Your task to perform on an android device: turn off location history Image 0: 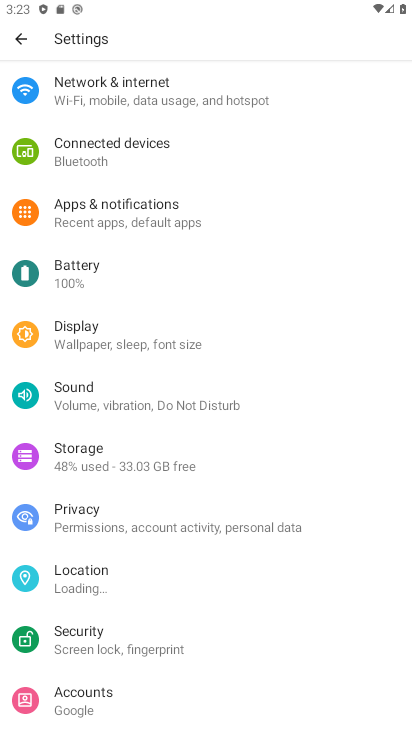
Step 0: press home button
Your task to perform on an android device: turn off location history Image 1: 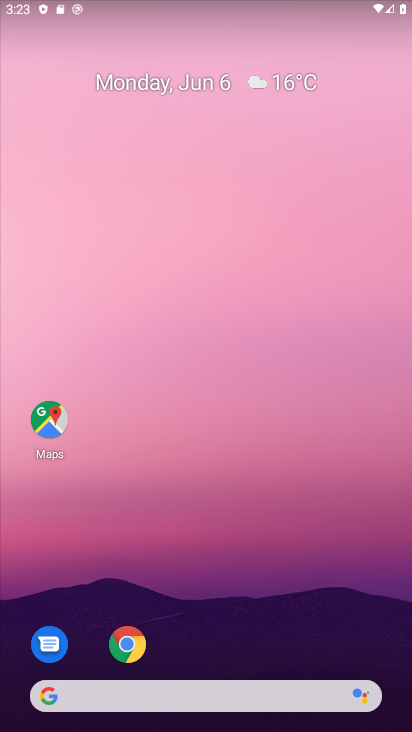
Step 1: drag from (179, 709) to (212, 23)
Your task to perform on an android device: turn off location history Image 2: 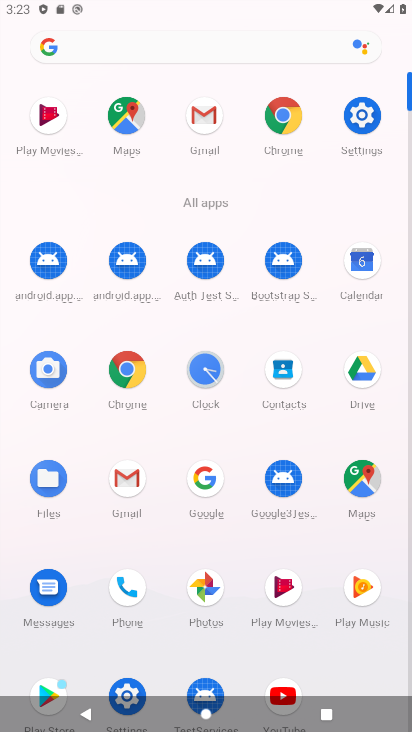
Step 2: click (377, 118)
Your task to perform on an android device: turn off location history Image 3: 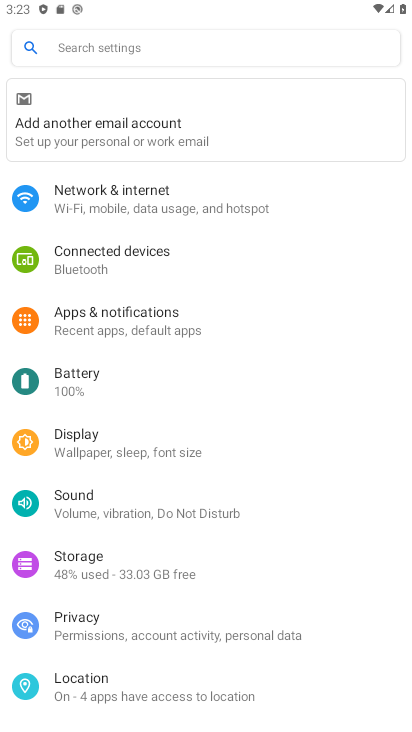
Step 3: click (375, 116)
Your task to perform on an android device: turn off location history Image 4: 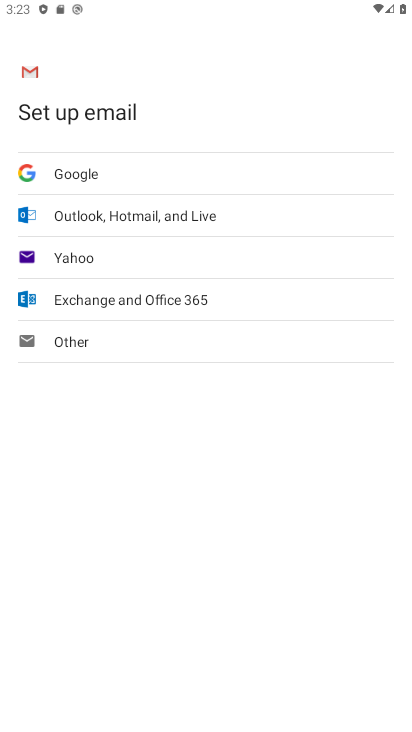
Step 4: press home button
Your task to perform on an android device: turn off location history Image 5: 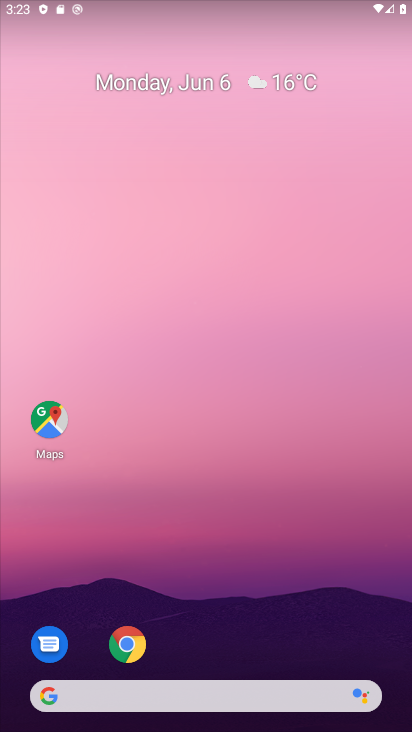
Step 5: drag from (128, 727) to (124, 190)
Your task to perform on an android device: turn off location history Image 6: 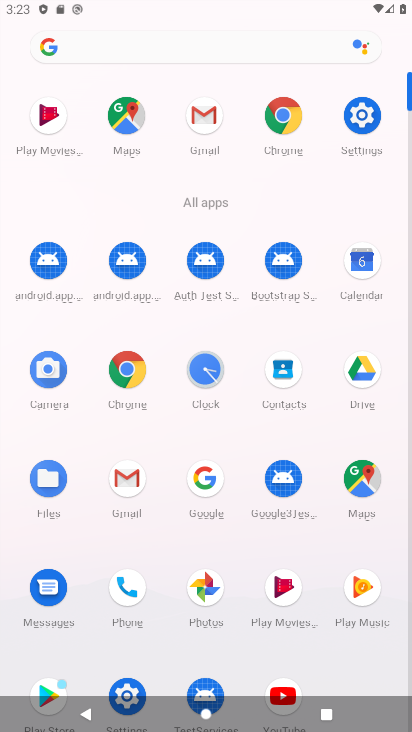
Step 6: click (367, 134)
Your task to perform on an android device: turn off location history Image 7: 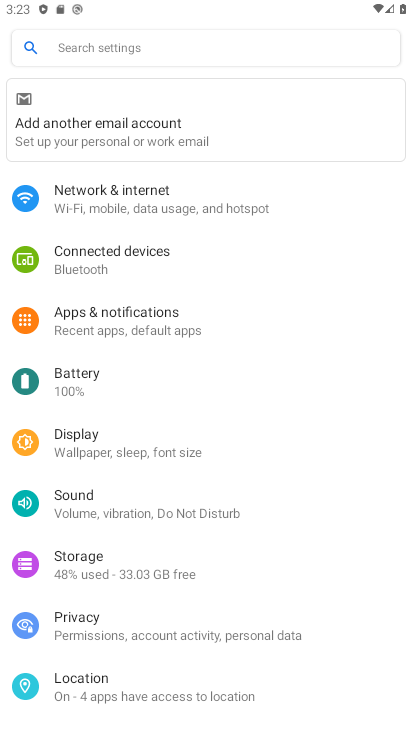
Step 7: click (196, 685)
Your task to perform on an android device: turn off location history Image 8: 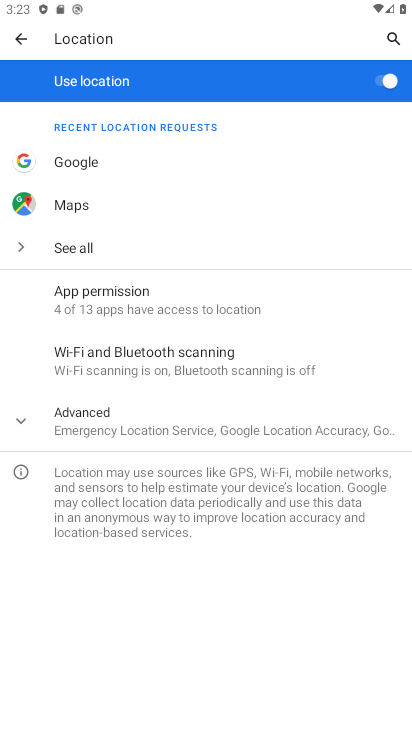
Step 8: click (164, 429)
Your task to perform on an android device: turn off location history Image 9: 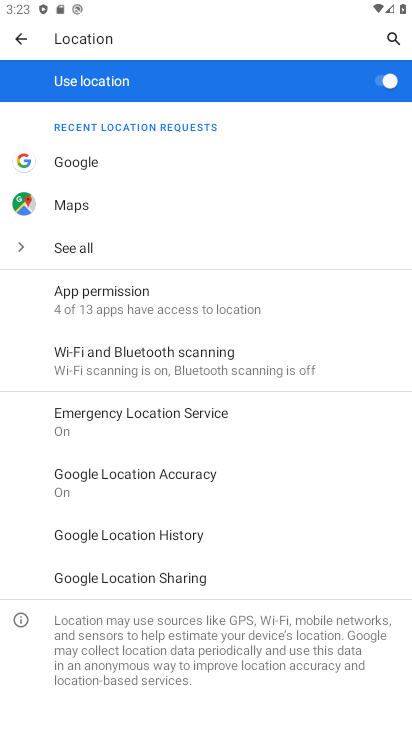
Step 9: click (138, 542)
Your task to perform on an android device: turn off location history Image 10: 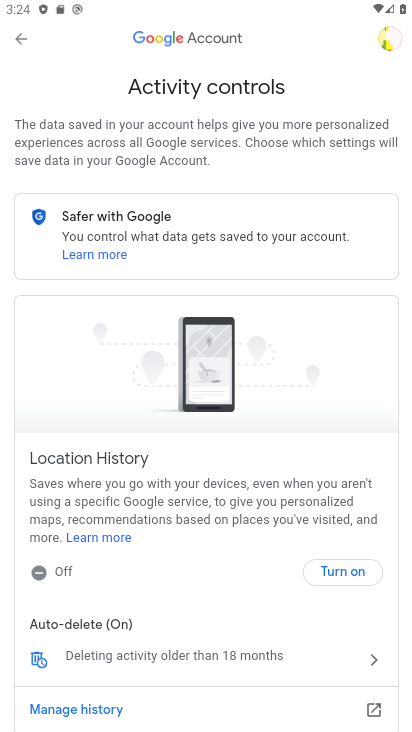
Step 10: click (61, 571)
Your task to perform on an android device: turn off location history Image 11: 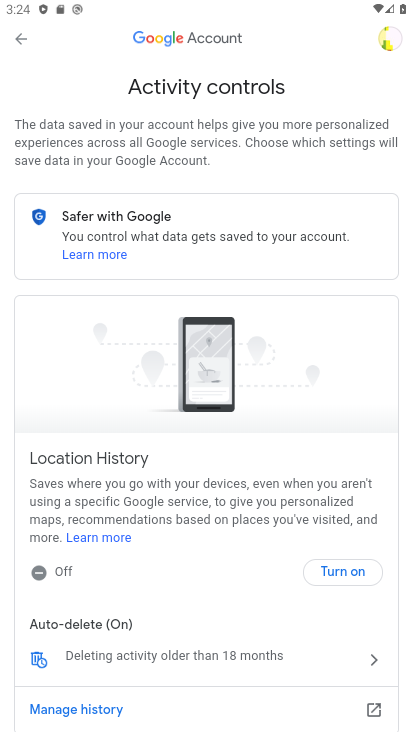
Step 11: task complete